Your task to perform on an android device: search for starred emails in the gmail app Image 0: 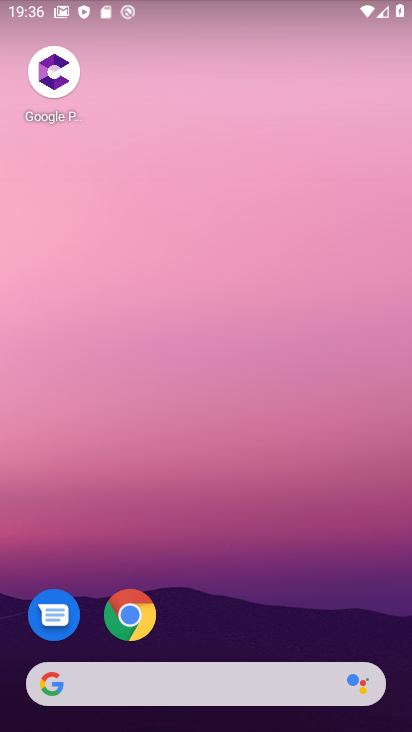
Step 0: drag from (332, 620) to (301, 168)
Your task to perform on an android device: search for starred emails in the gmail app Image 1: 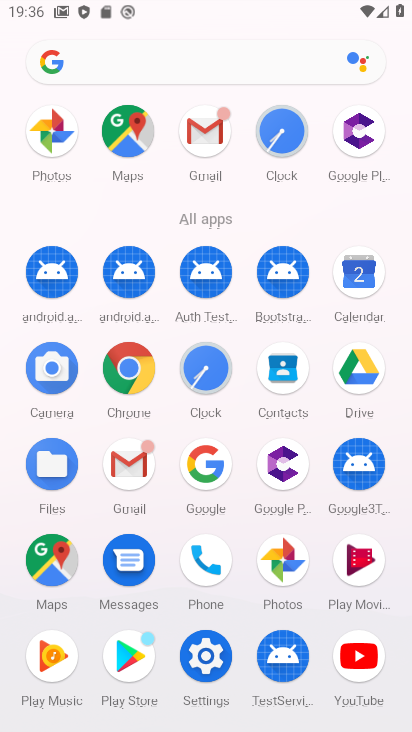
Step 1: click (213, 138)
Your task to perform on an android device: search for starred emails in the gmail app Image 2: 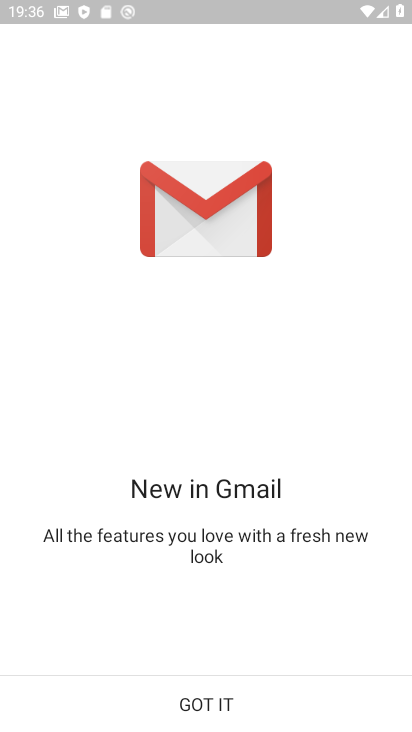
Step 2: click (191, 714)
Your task to perform on an android device: search for starred emails in the gmail app Image 3: 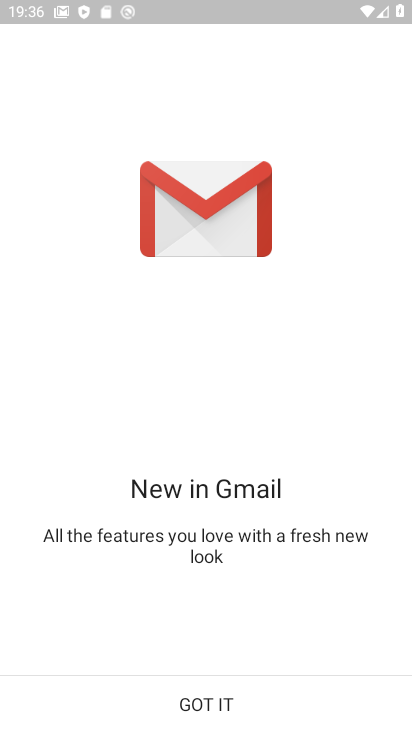
Step 3: click (191, 714)
Your task to perform on an android device: search for starred emails in the gmail app Image 4: 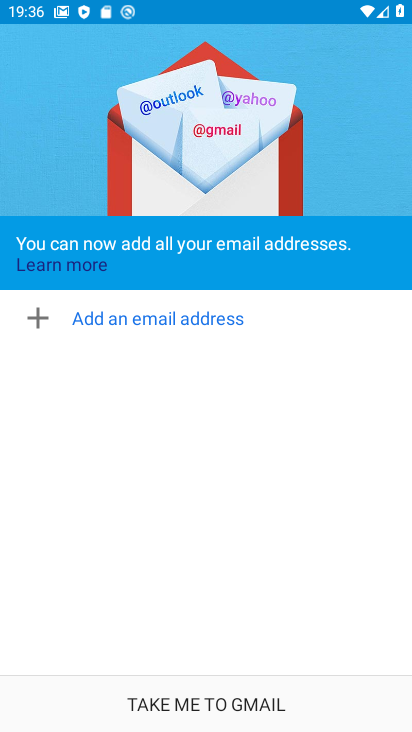
Step 4: click (191, 714)
Your task to perform on an android device: search for starred emails in the gmail app Image 5: 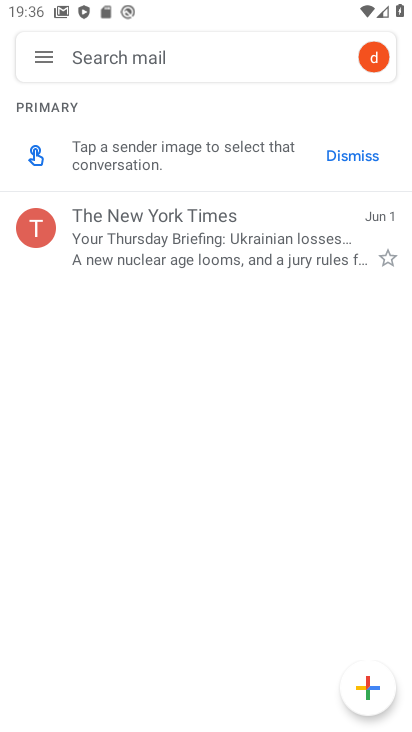
Step 5: click (34, 61)
Your task to perform on an android device: search for starred emails in the gmail app Image 6: 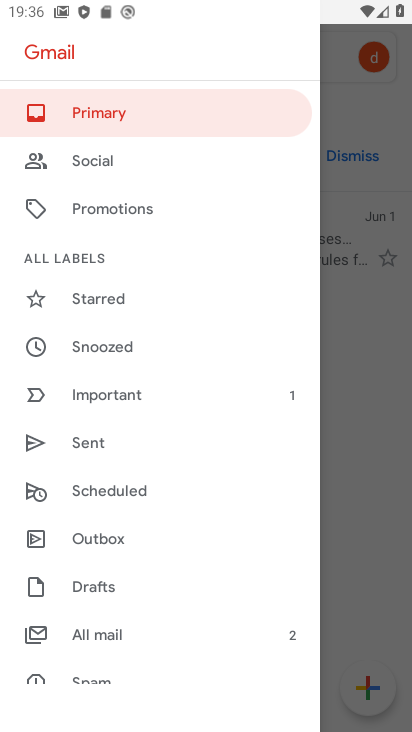
Step 6: click (93, 314)
Your task to perform on an android device: search for starred emails in the gmail app Image 7: 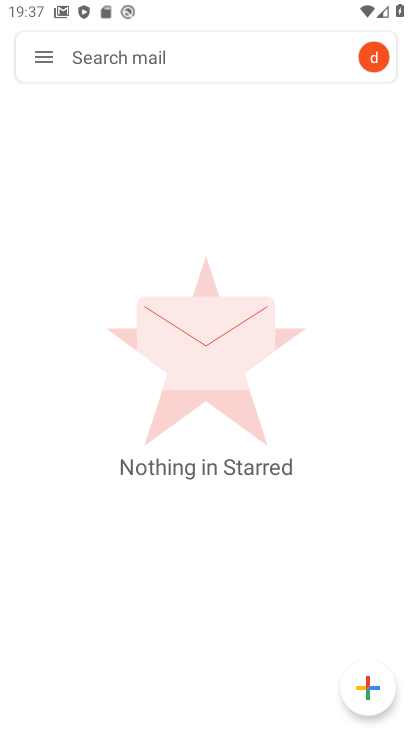
Step 7: task complete